Your task to perform on an android device: turn on location history Image 0: 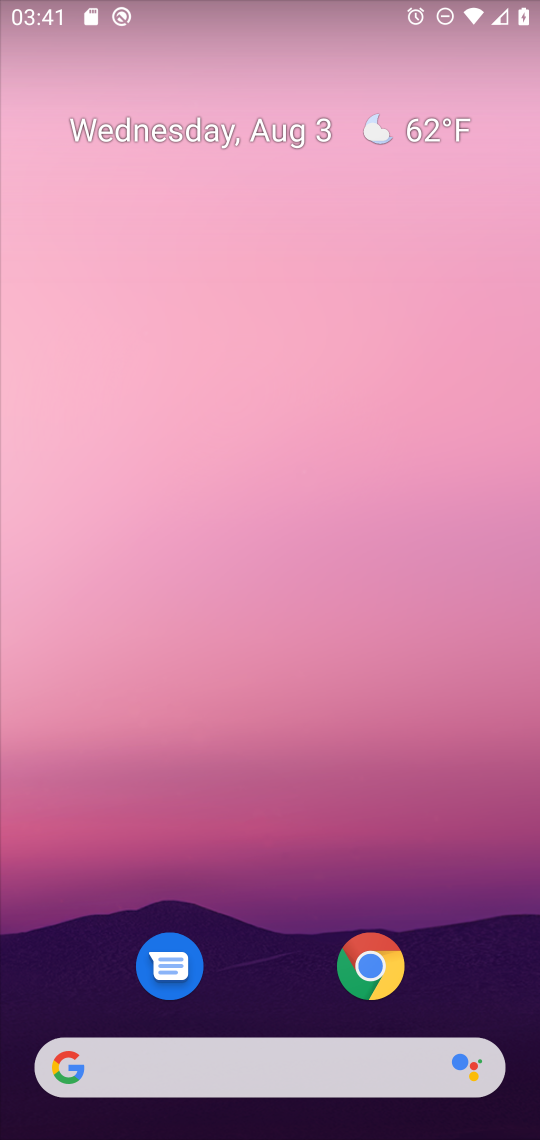
Step 0: drag from (238, 988) to (244, 417)
Your task to perform on an android device: turn on location history Image 1: 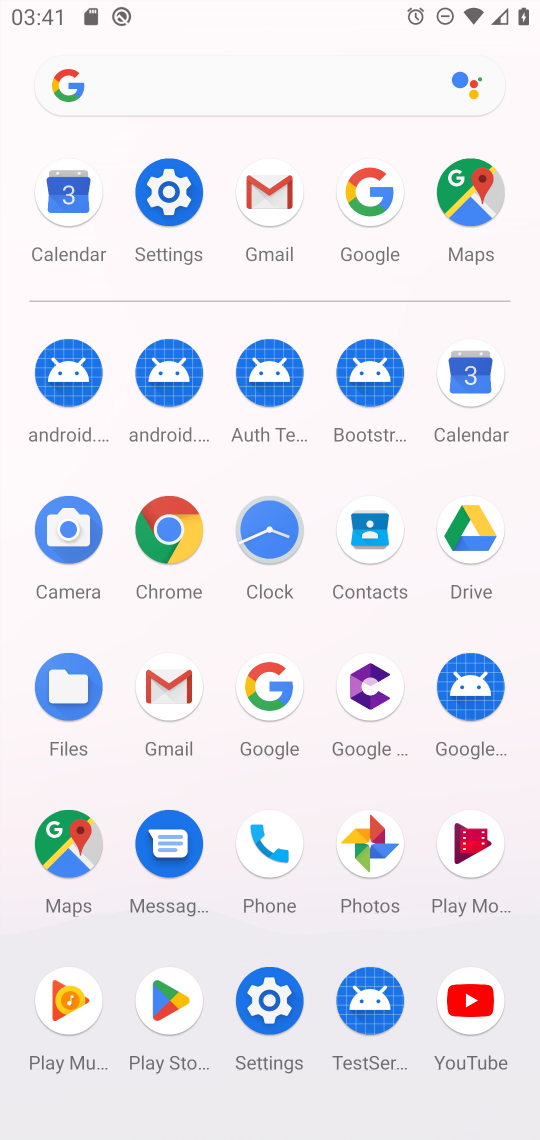
Step 1: click (186, 207)
Your task to perform on an android device: turn on location history Image 2: 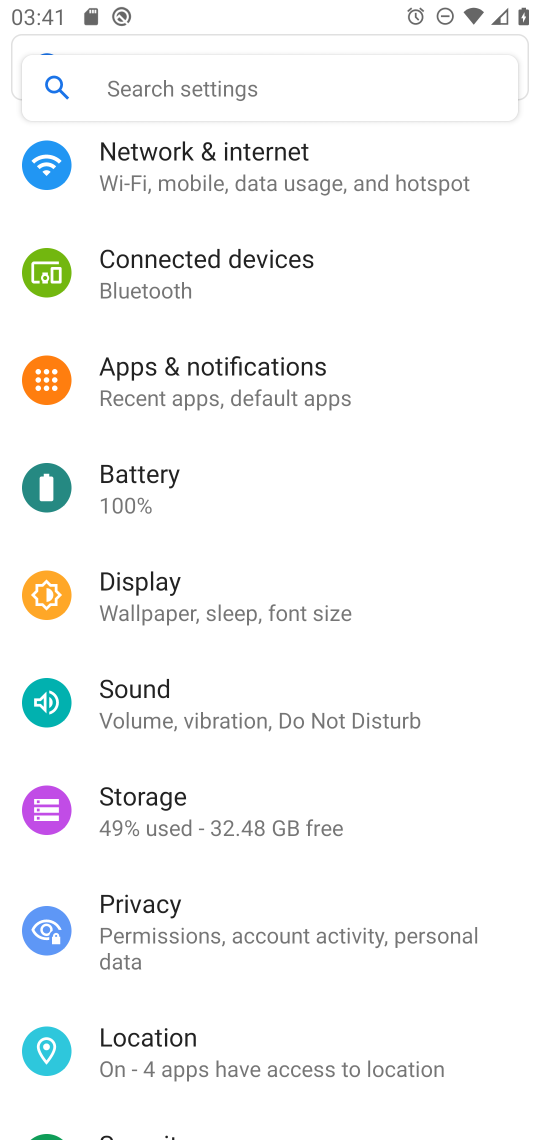
Step 2: click (222, 1060)
Your task to perform on an android device: turn on location history Image 3: 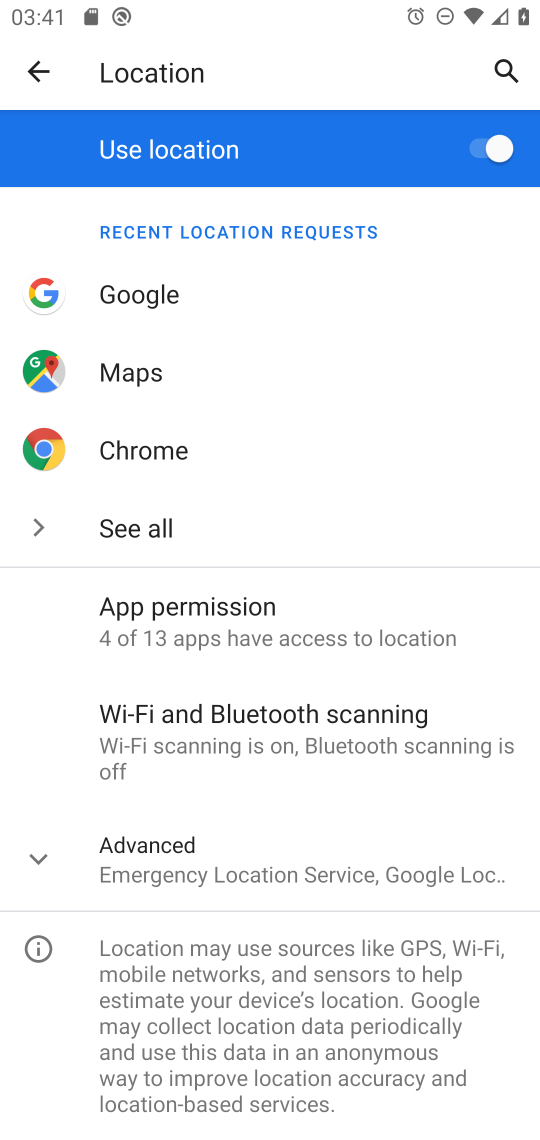
Step 3: click (248, 863)
Your task to perform on an android device: turn on location history Image 4: 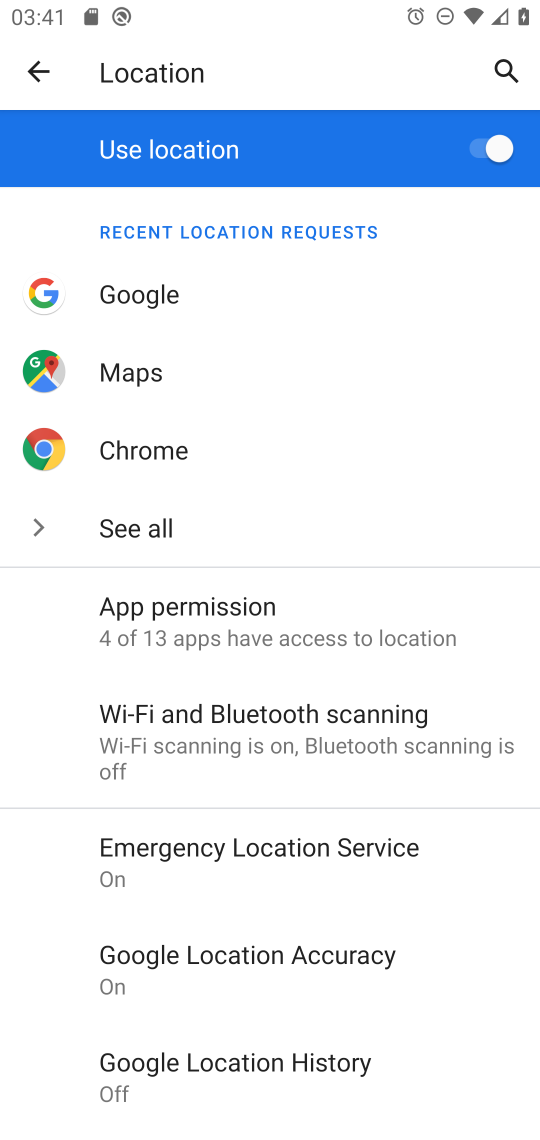
Step 4: click (302, 1048)
Your task to perform on an android device: turn on location history Image 5: 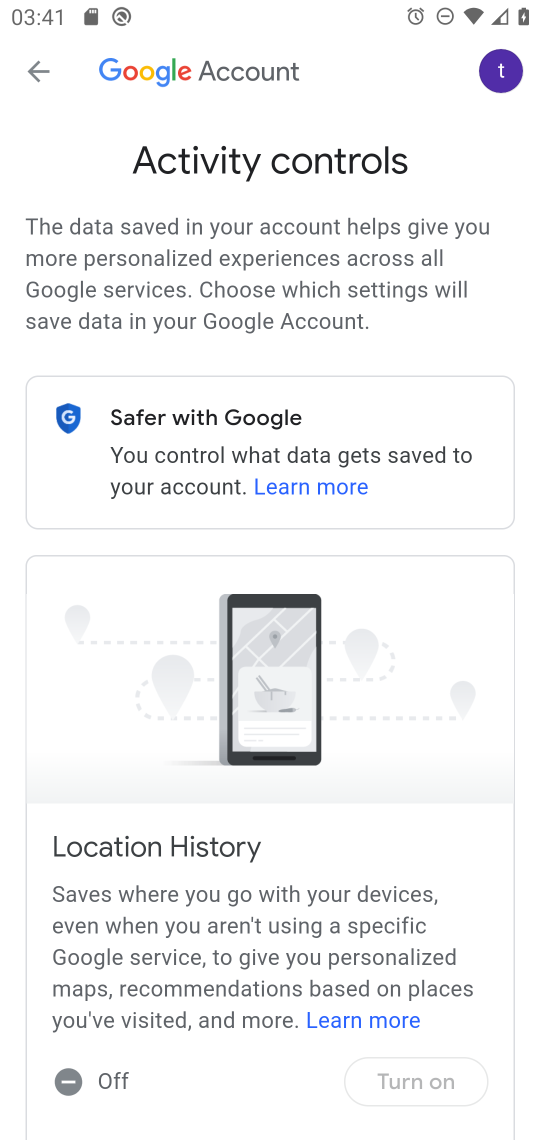
Step 5: drag from (371, 948) to (338, 406)
Your task to perform on an android device: turn on location history Image 6: 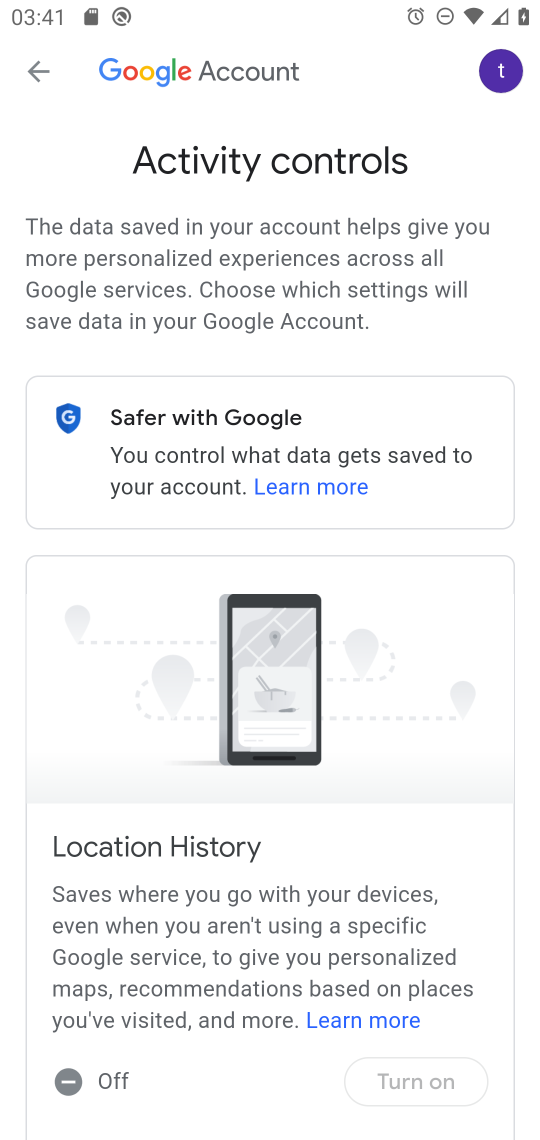
Step 6: click (405, 1072)
Your task to perform on an android device: turn on location history Image 7: 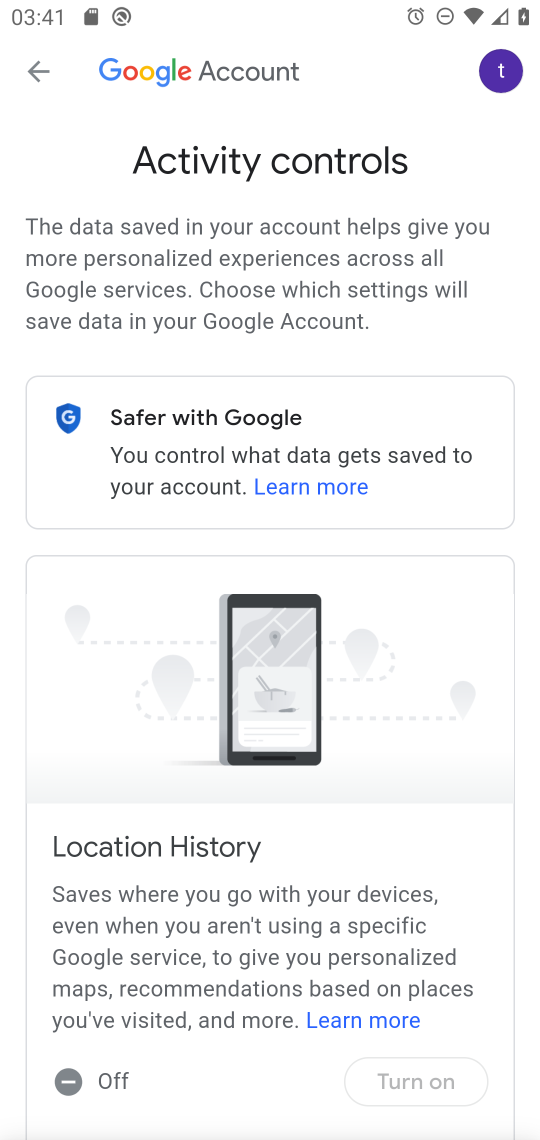
Step 7: drag from (381, 824) to (379, 486)
Your task to perform on an android device: turn on location history Image 8: 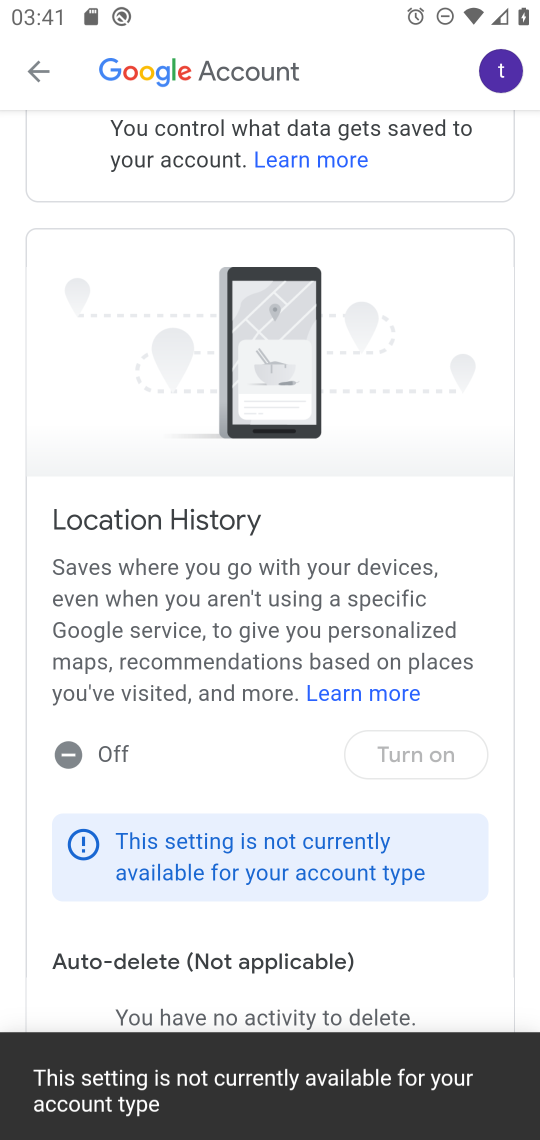
Step 8: click (401, 736)
Your task to perform on an android device: turn on location history Image 9: 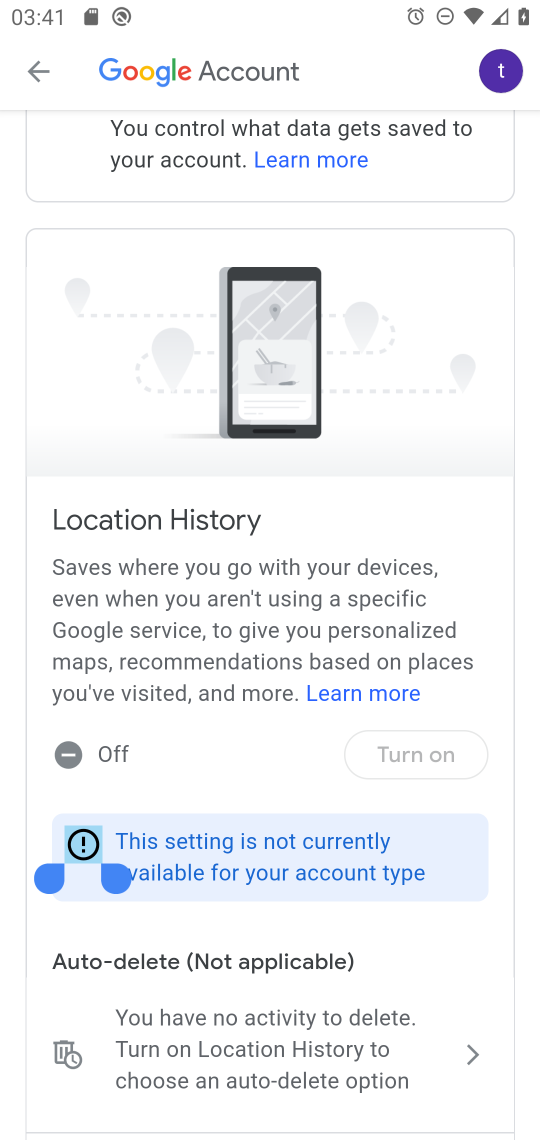
Step 9: click (440, 757)
Your task to perform on an android device: turn on location history Image 10: 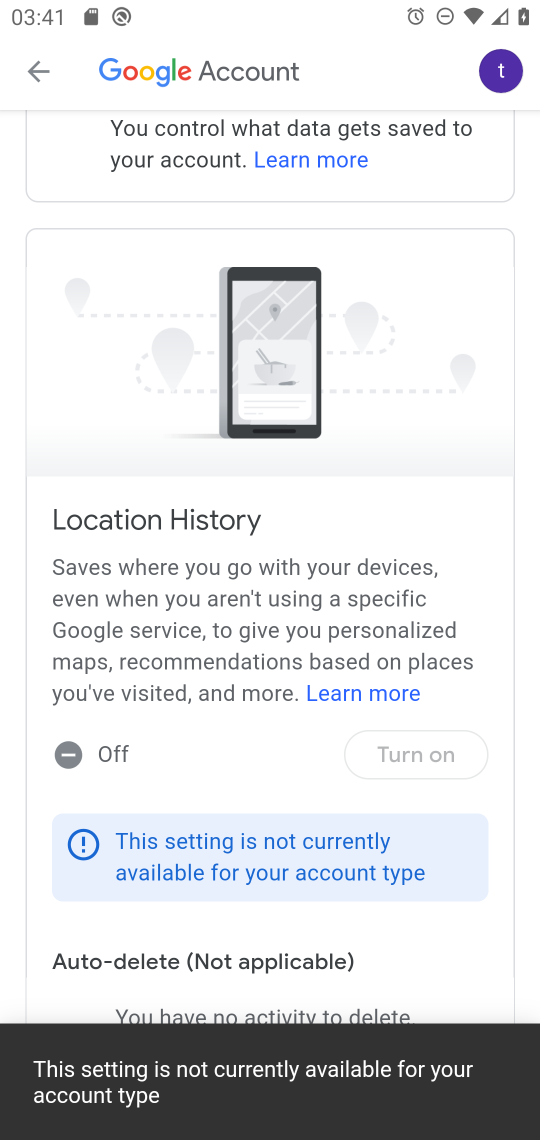
Step 10: click (440, 757)
Your task to perform on an android device: turn on location history Image 11: 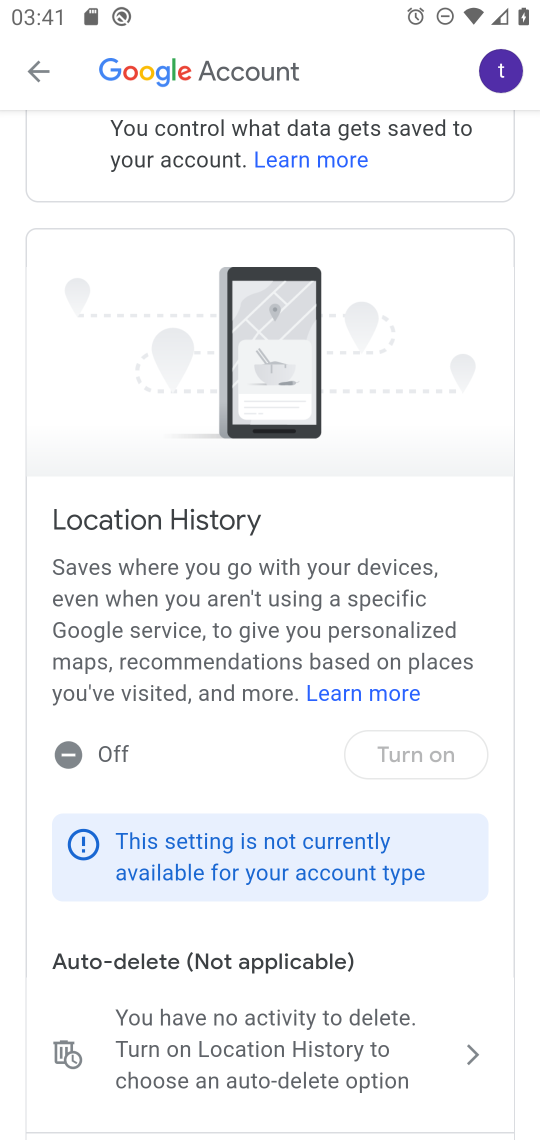
Step 11: task complete